Your task to perform on an android device: Check the weather Image 0: 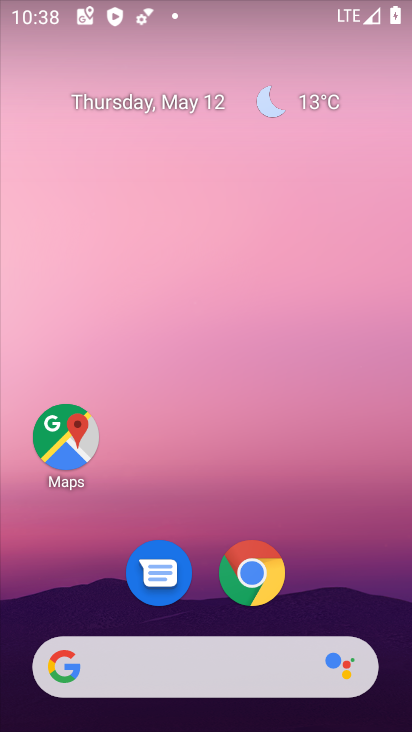
Step 0: drag from (216, 629) to (373, 604)
Your task to perform on an android device: Check the weather Image 1: 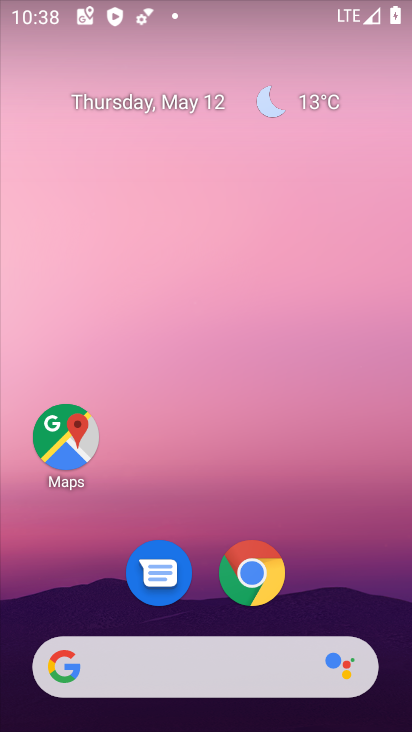
Step 1: click (180, 681)
Your task to perform on an android device: Check the weather Image 2: 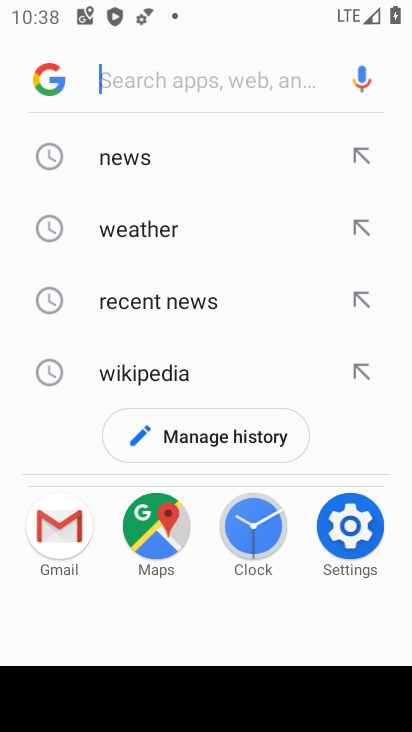
Step 2: click (119, 213)
Your task to perform on an android device: Check the weather Image 3: 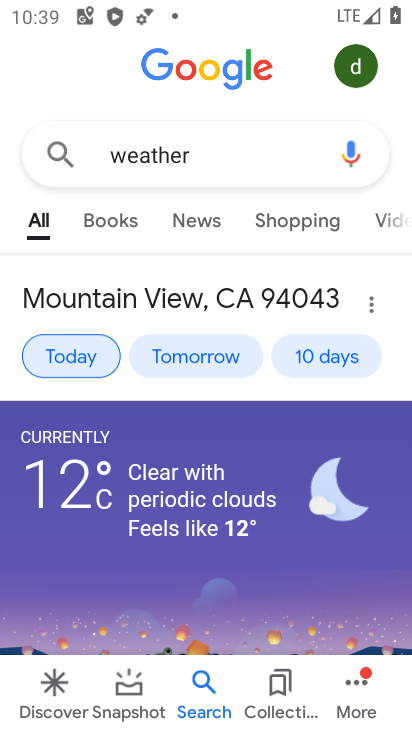
Step 3: task complete